Your task to perform on an android device: When is my next meeting? Image 0: 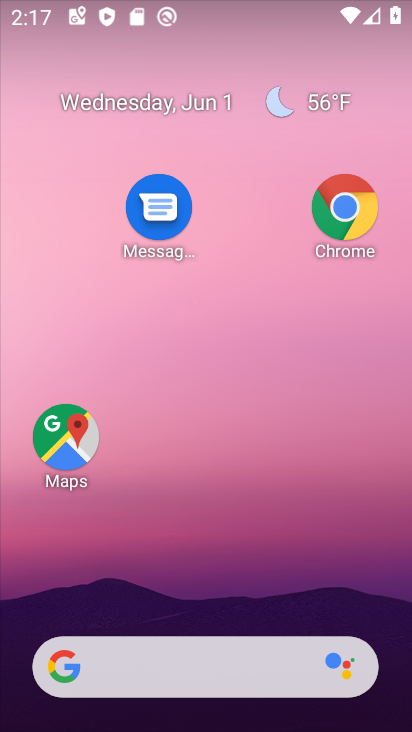
Step 0: click (411, 506)
Your task to perform on an android device: When is my next meeting? Image 1: 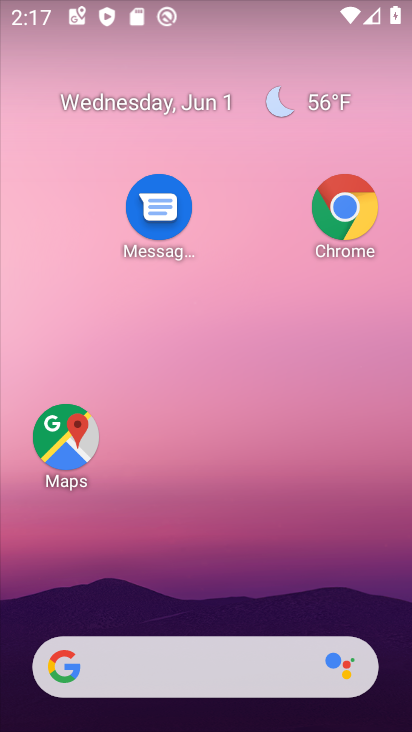
Step 1: drag from (184, 627) to (287, 165)
Your task to perform on an android device: When is my next meeting? Image 2: 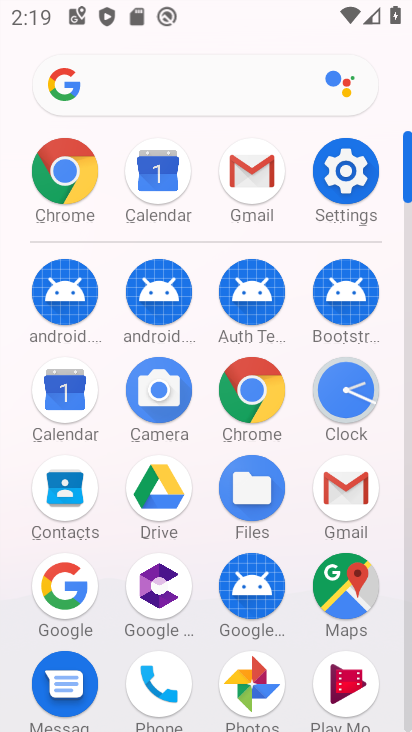
Step 2: click (38, 386)
Your task to perform on an android device: When is my next meeting? Image 3: 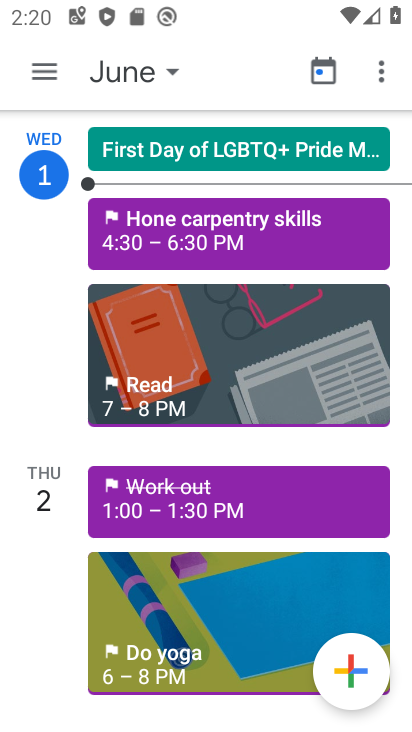
Step 3: click (245, 274)
Your task to perform on an android device: When is my next meeting? Image 4: 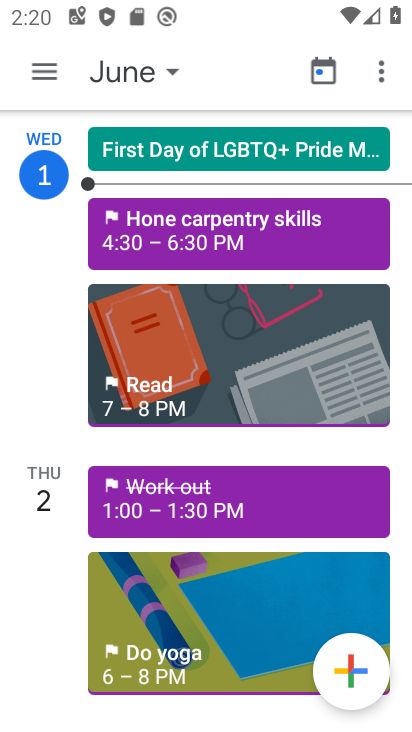
Step 4: task complete